Your task to perform on an android device: find photos in the google photos app Image 0: 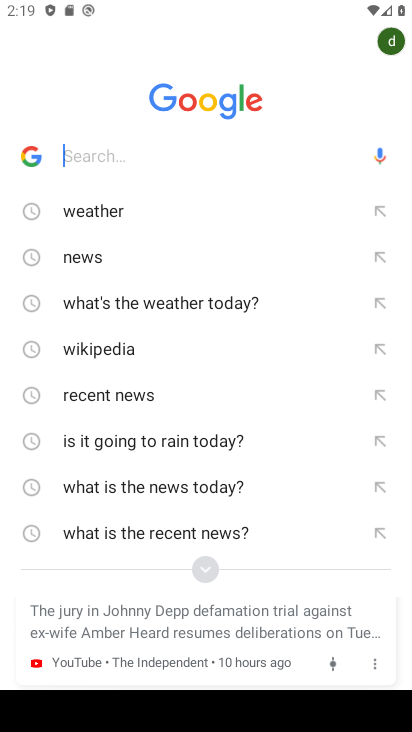
Step 0: press home button
Your task to perform on an android device: find photos in the google photos app Image 1: 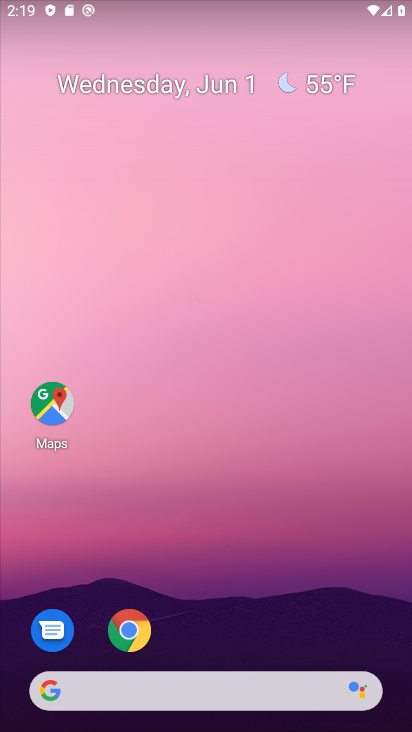
Step 1: drag from (183, 648) to (281, 243)
Your task to perform on an android device: find photos in the google photos app Image 2: 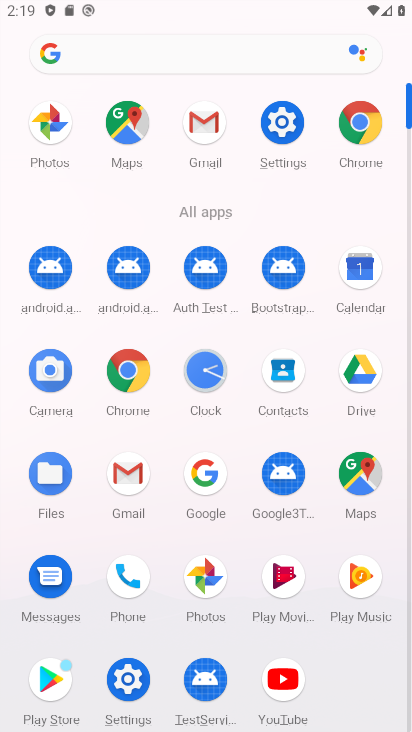
Step 2: click (205, 574)
Your task to perform on an android device: find photos in the google photos app Image 3: 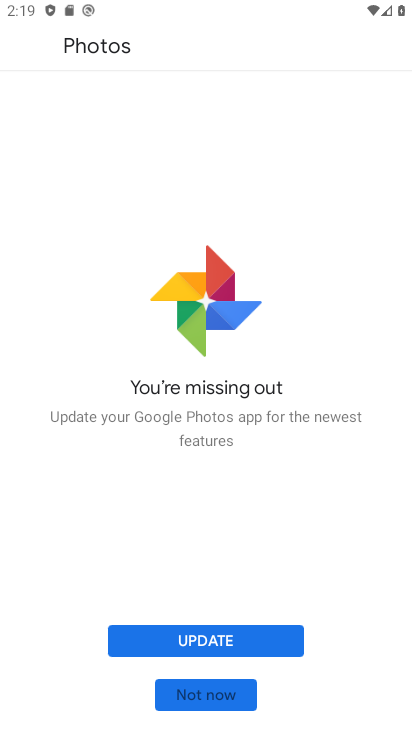
Step 3: click (236, 648)
Your task to perform on an android device: find photos in the google photos app Image 4: 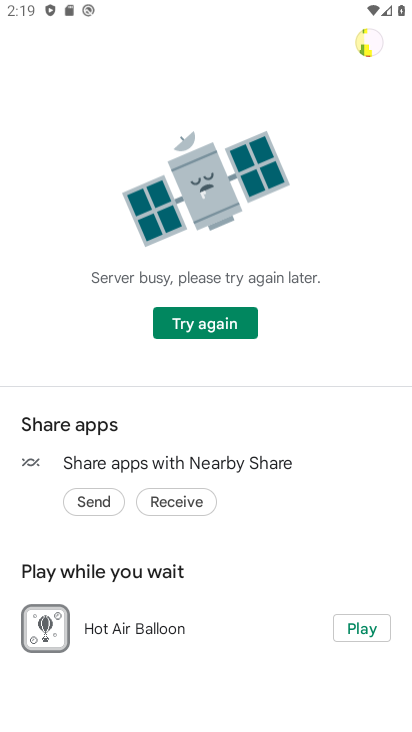
Step 4: click (223, 301)
Your task to perform on an android device: find photos in the google photos app Image 5: 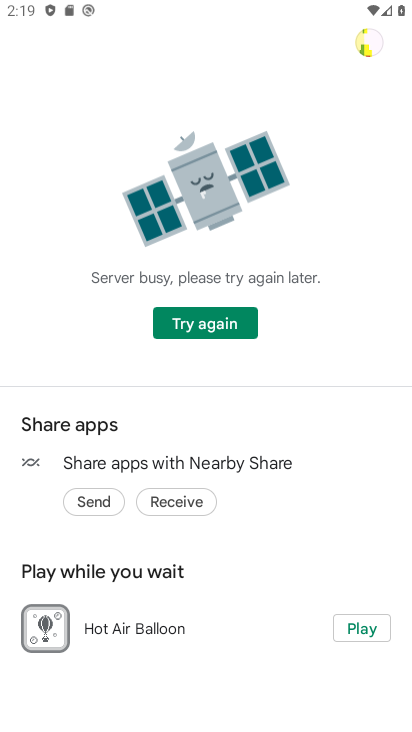
Step 5: task complete